Your task to perform on an android device: Is it going to rain tomorrow? Image 0: 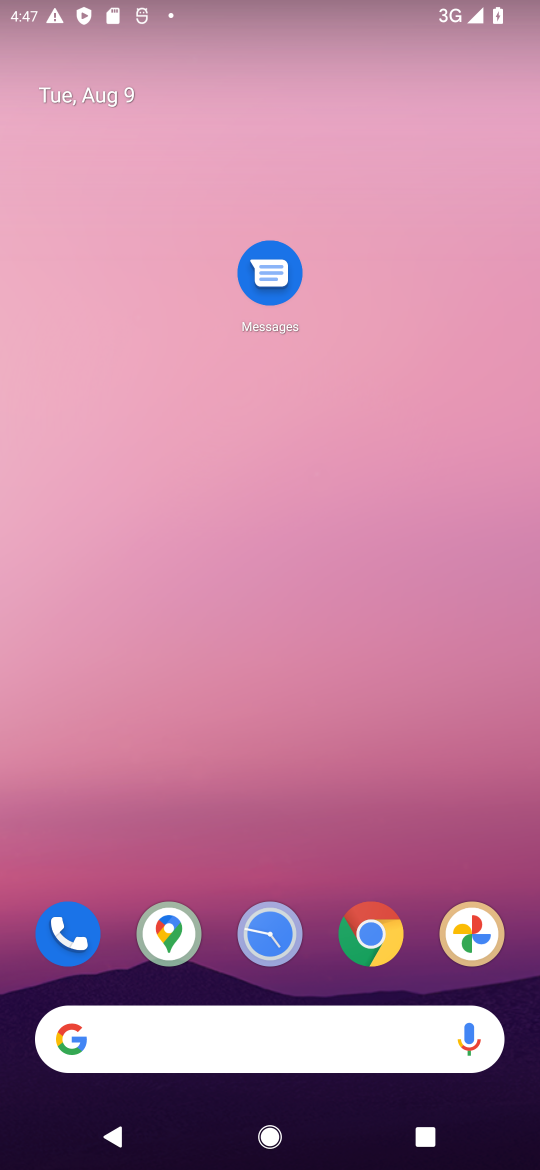
Step 0: drag from (327, 961) to (507, 39)
Your task to perform on an android device: Is it going to rain tomorrow? Image 1: 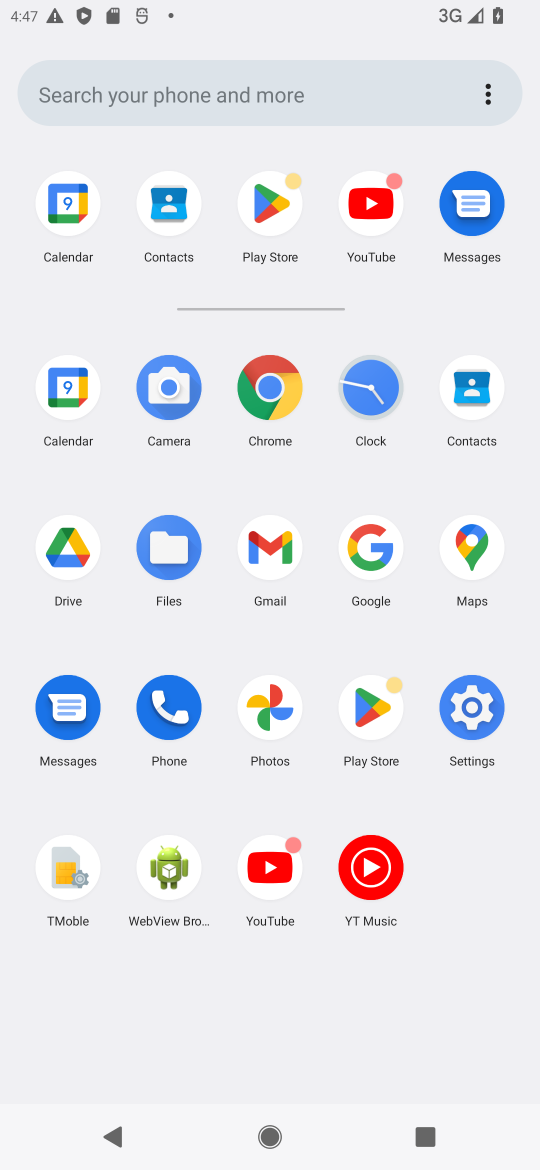
Step 1: press home button
Your task to perform on an android device: Is it going to rain tomorrow? Image 2: 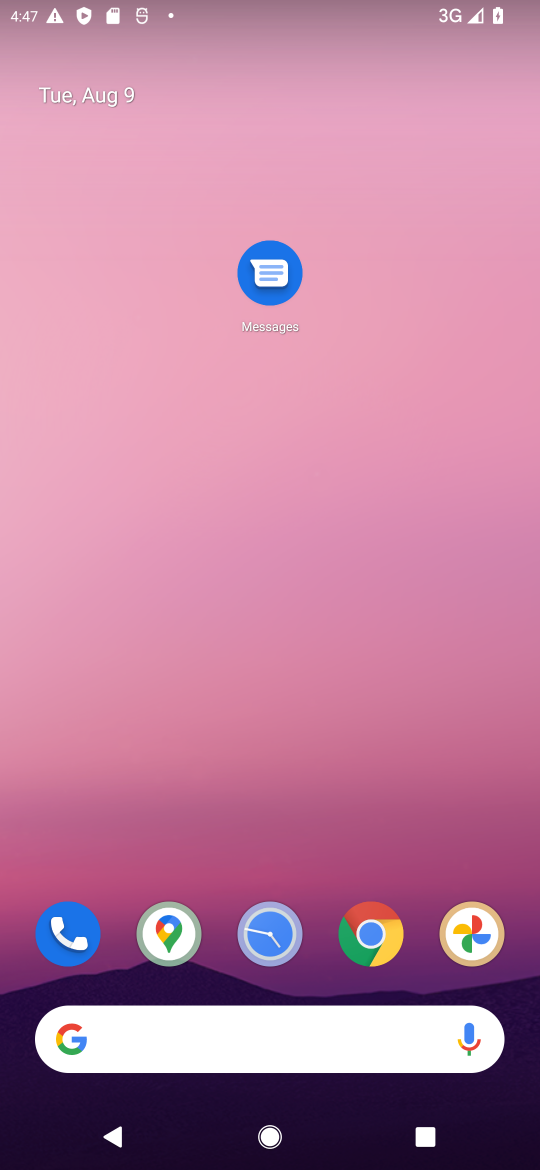
Step 2: click (279, 1021)
Your task to perform on an android device: Is it going to rain tomorrow? Image 3: 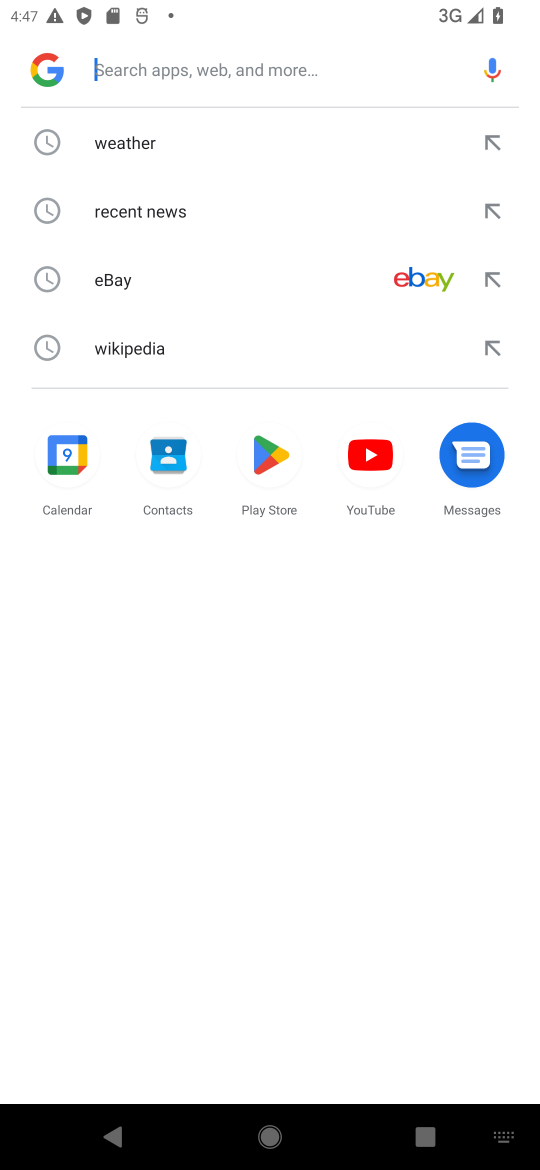
Step 3: click (184, 124)
Your task to perform on an android device: Is it going to rain tomorrow? Image 4: 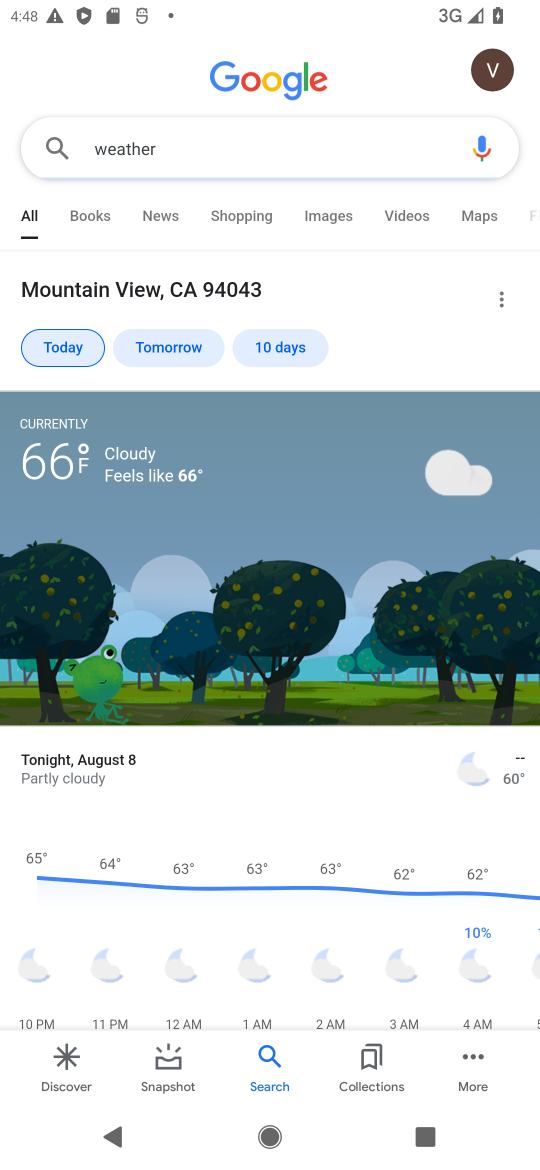
Step 4: task complete